Your task to perform on an android device: Go to eBay Image 0: 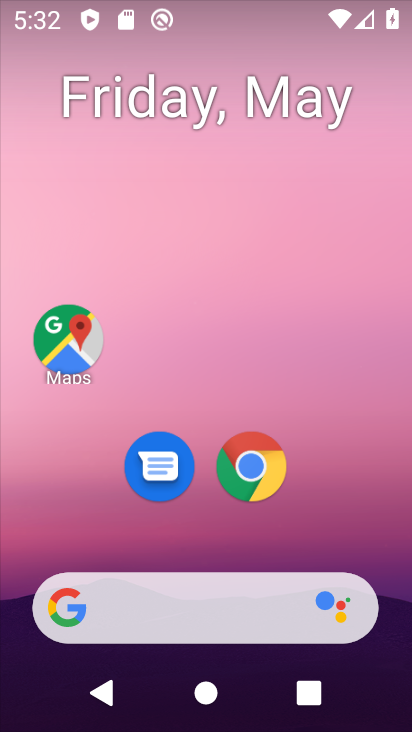
Step 0: drag from (335, 477) to (251, 26)
Your task to perform on an android device: Go to eBay Image 1: 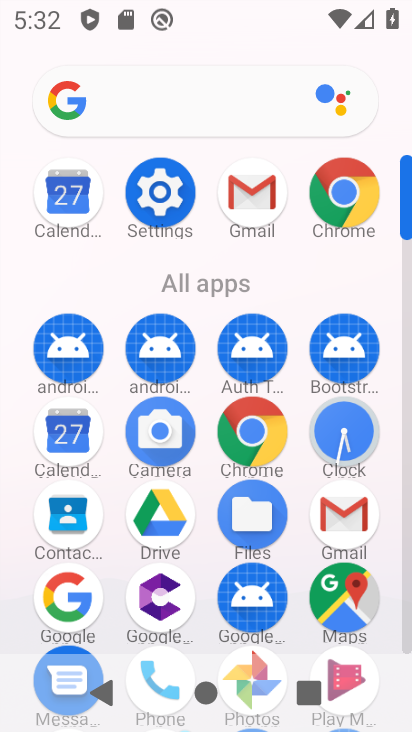
Step 1: drag from (11, 609) to (11, 270)
Your task to perform on an android device: Go to eBay Image 2: 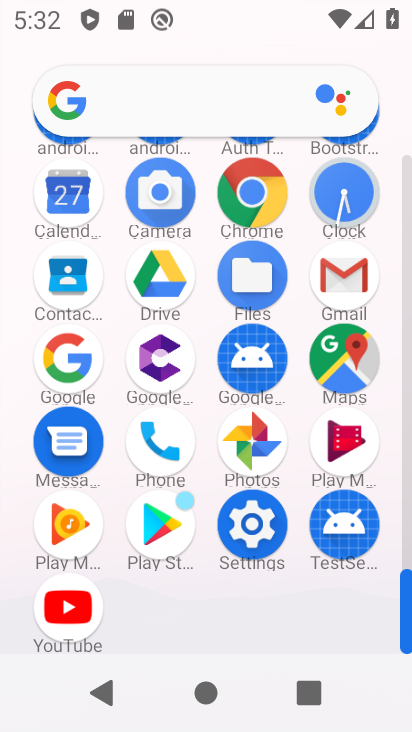
Step 2: click (248, 189)
Your task to perform on an android device: Go to eBay Image 3: 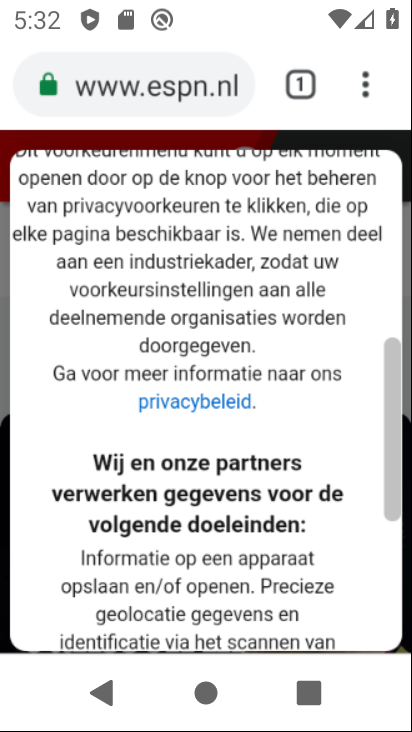
Step 3: click (171, 80)
Your task to perform on an android device: Go to eBay Image 4: 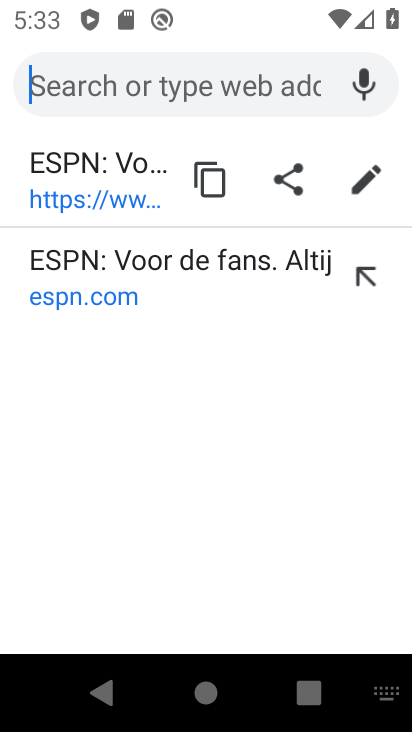
Step 4: type "eBay"
Your task to perform on an android device: Go to eBay Image 5: 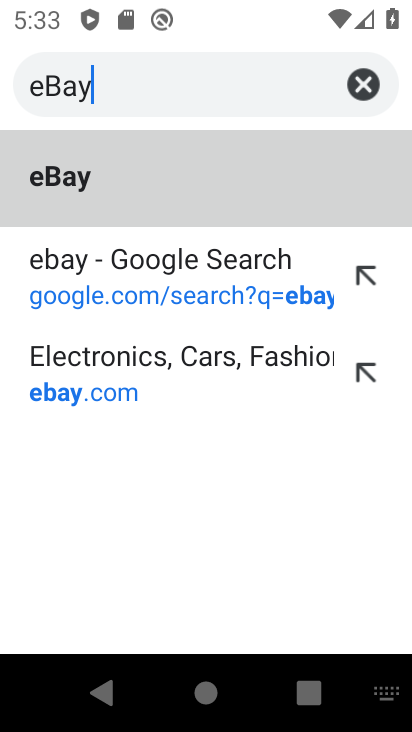
Step 5: type ""
Your task to perform on an android device: Go to eBay Image 6: 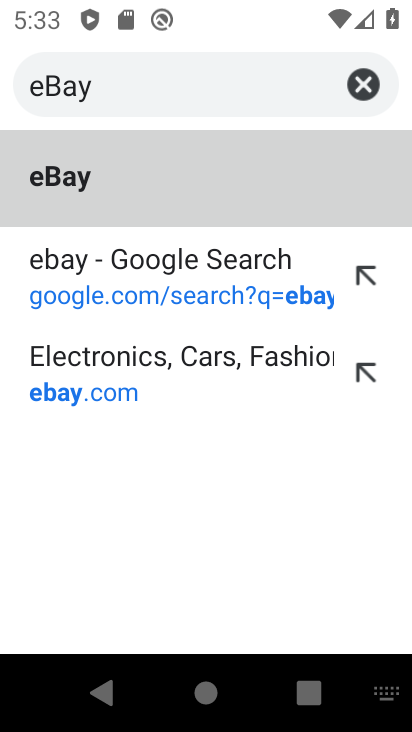
Step 6: click (152, 261)
Your task to perform on an android device: Go to eBay Image 7: 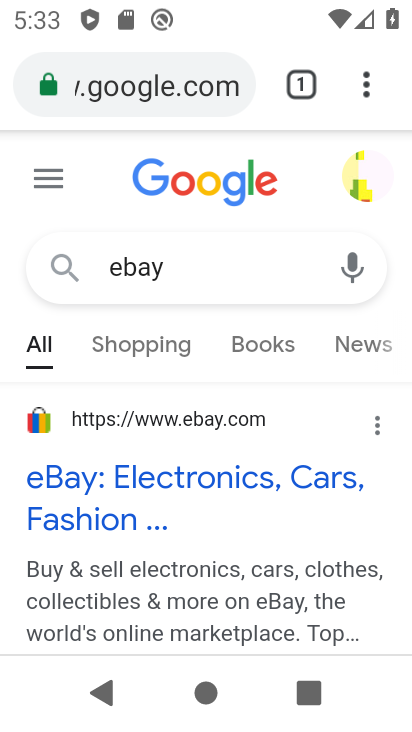
Step 7: click (73, 483)
Your task to perform on an android device: Go to eBay Image 8: 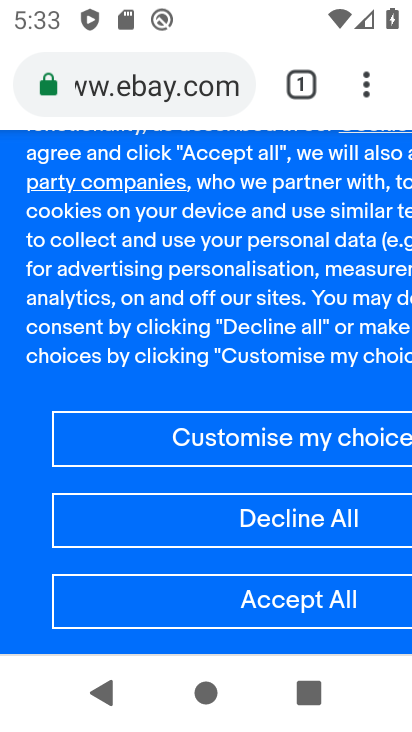
Step 8: task complete